Your task to perform on an android device: Go to battery settings Image 0: 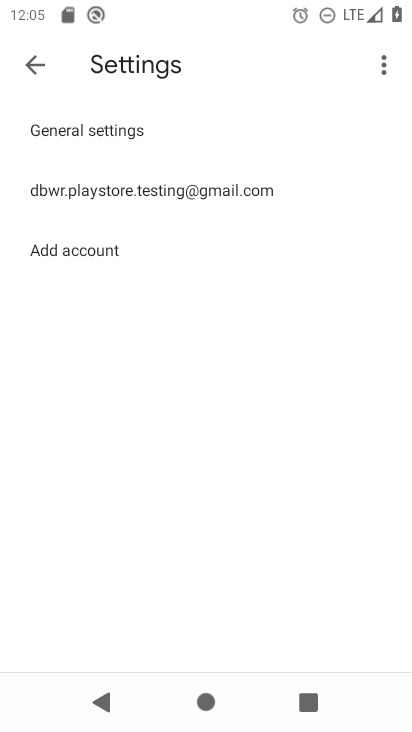
Step 0: press home button
Your task to perform on an android device: Go to battery settings Image 1: 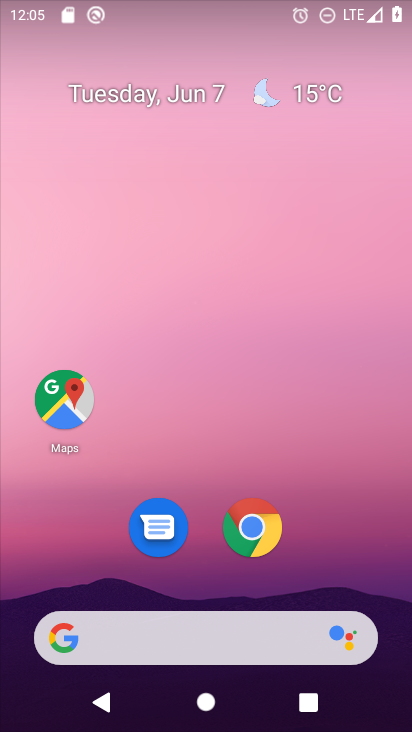
Step 1: drag from (323, 565) to (309, 96)
Your task to perform on an android device: Go to battery settings Image 2: 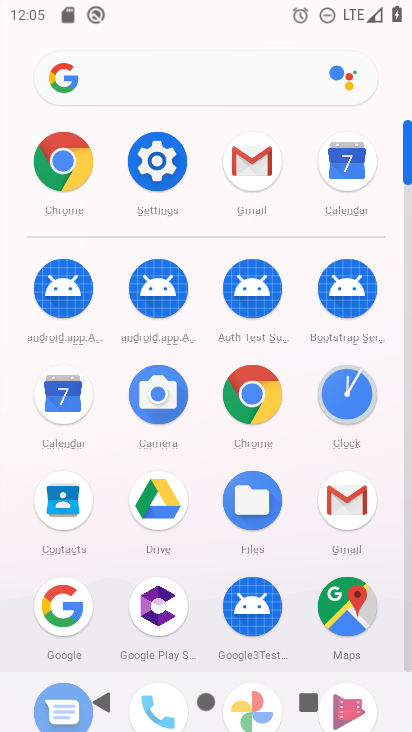
Step 2: click (159, 173)
Your task to perform on an android device: Go to battery settings Image 3: 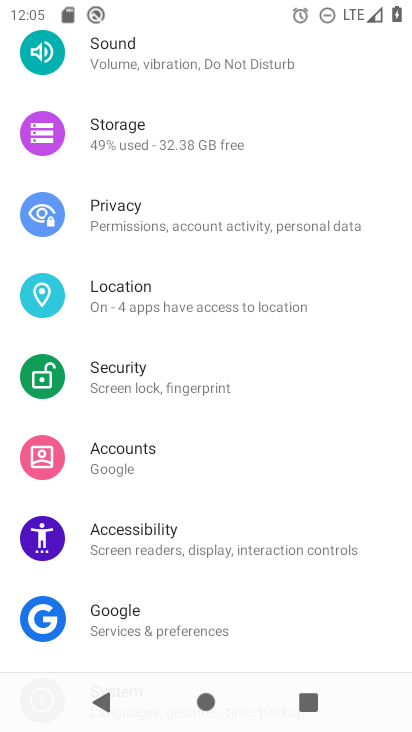
Step 3: drag from (335, 150) to (339, 304)
Your task to perform on an android device: Go to battery settings Image 4: 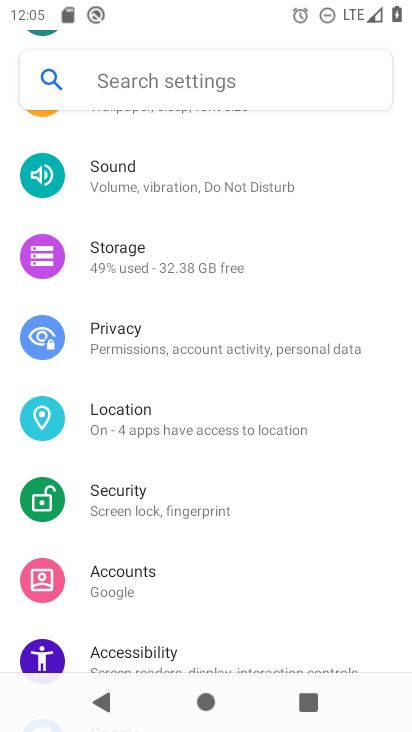
Step 4: drag from (338, 166) to (349, 358)
Your task to perform on an android device: Go to battery settings Image 5: 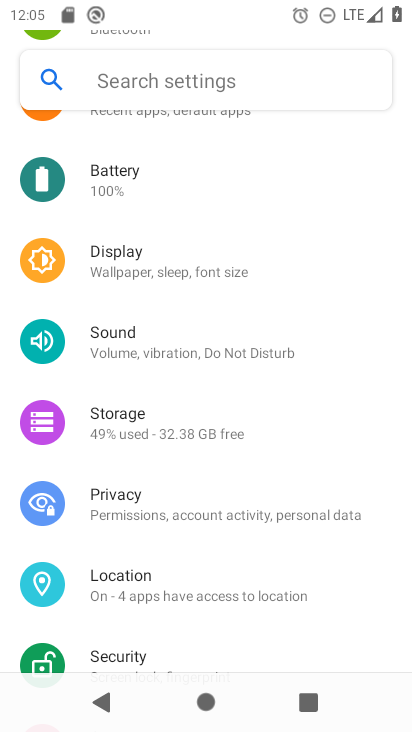
Step 5: drag from (330, 163) to (336, 445)
Your task to perform on an android device: Go to battery settings Image 6: 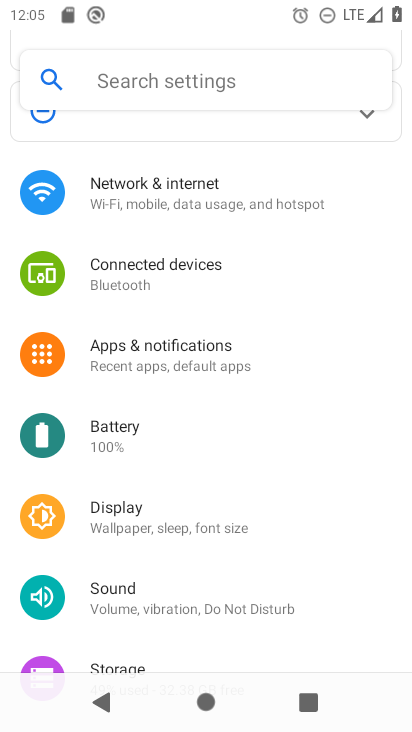
Step 6: drag from (338, 172) to (350, 470)
Your task to perform on an android device: Go to battery settings Image 7: 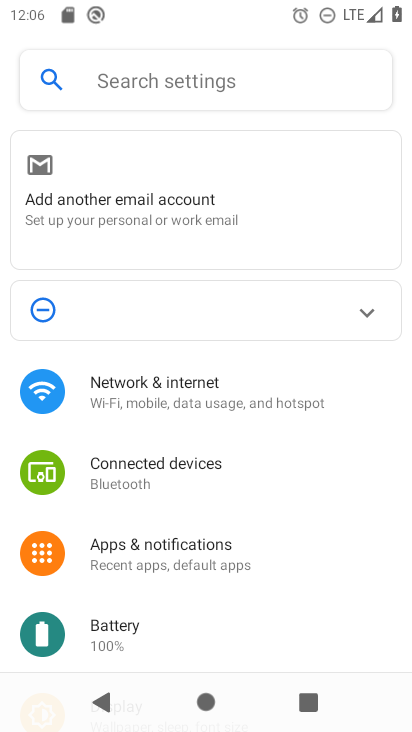
Step 7: drag from (339, 544) to (339, 307)
Your task to perform on an android device: Go to battery settings Image 8: 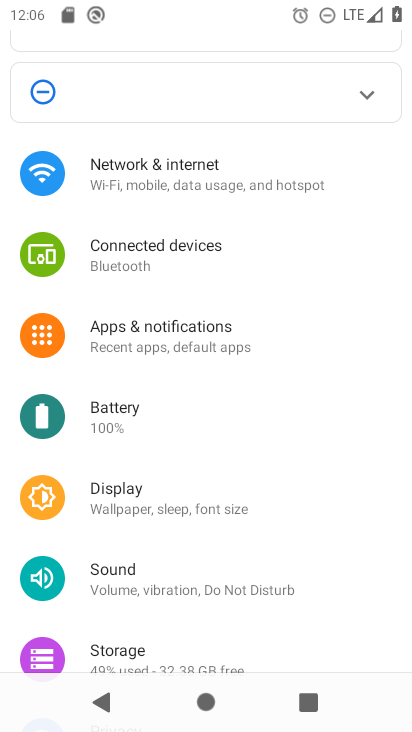
Step 8: drag from (306, 480) to (310, 244)
Your task to perform on an android device: Go to battery settings Image 9: 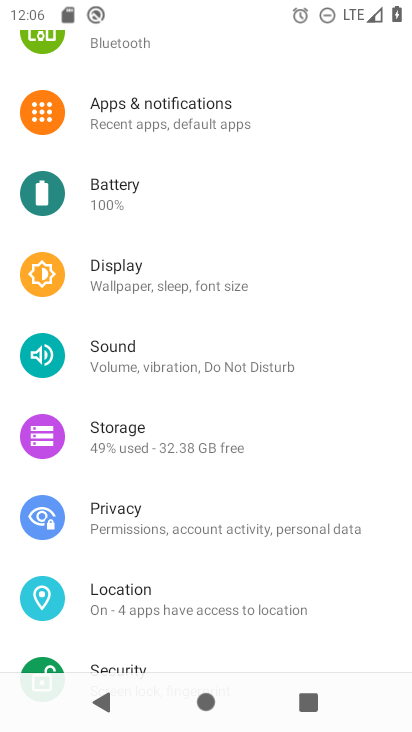
Step 9: drag from (308, 447) to (310, 286)
Your task to perform on an android device: Go to battery settings Image 10: 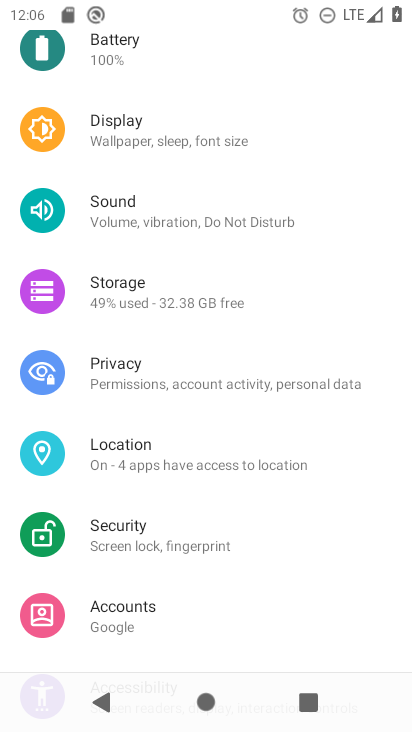
Step 10: drag from (309, 142) to (309, 368)
Your task to perform on an android device: Go to battery settings Image 11: 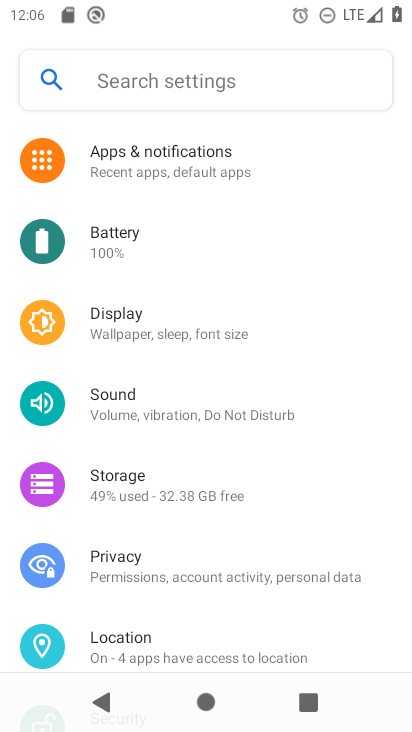
Step 11: click (180, 249)
Your task to perform on an android device: Go to battery settings Image 12: 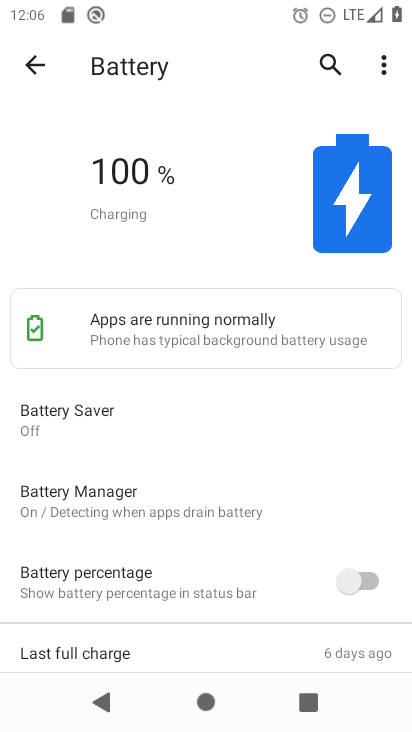
Step 12: task complete